Your task to perform on an android device: see creations saved in the google photos Image 0: 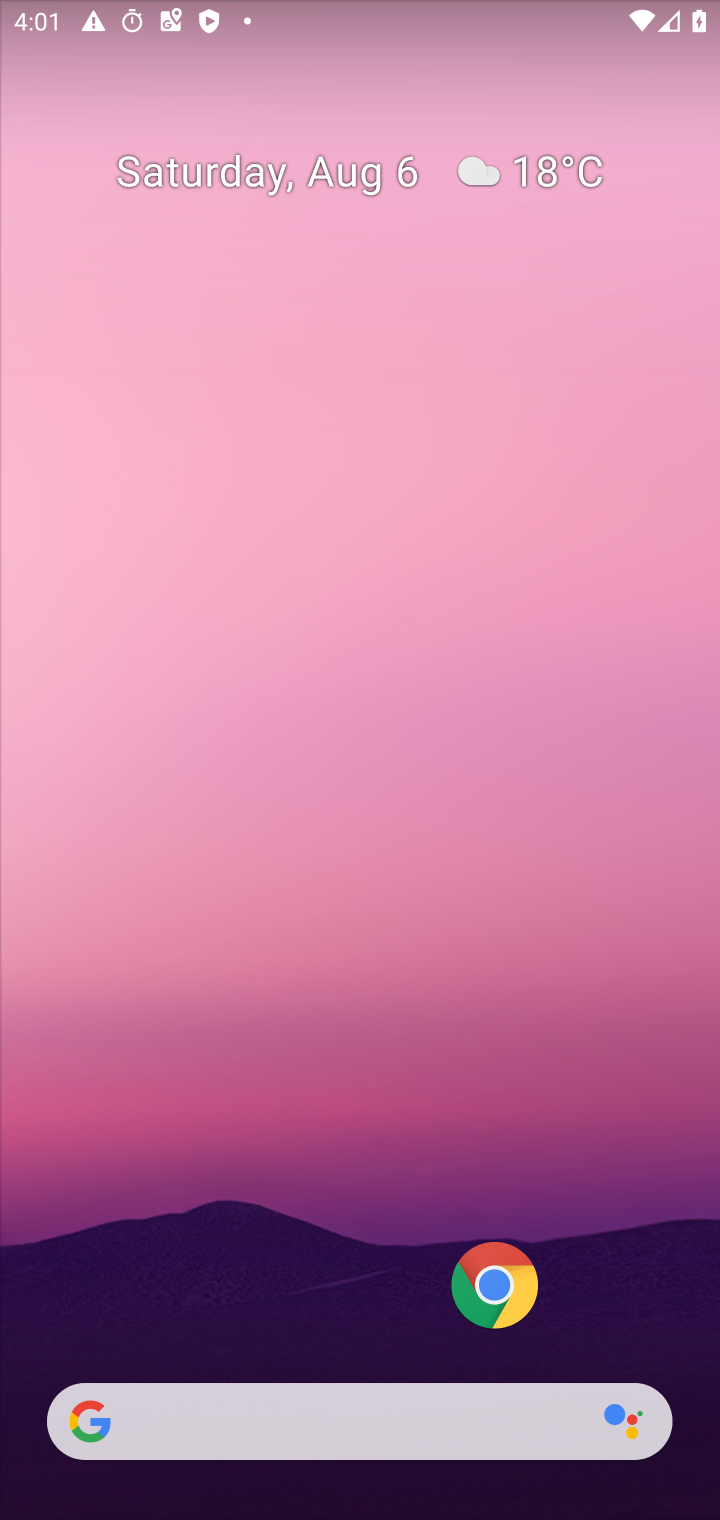
Step 0: press home button
Your task to perform on an android device: see creations saved in the google photos Image 1: 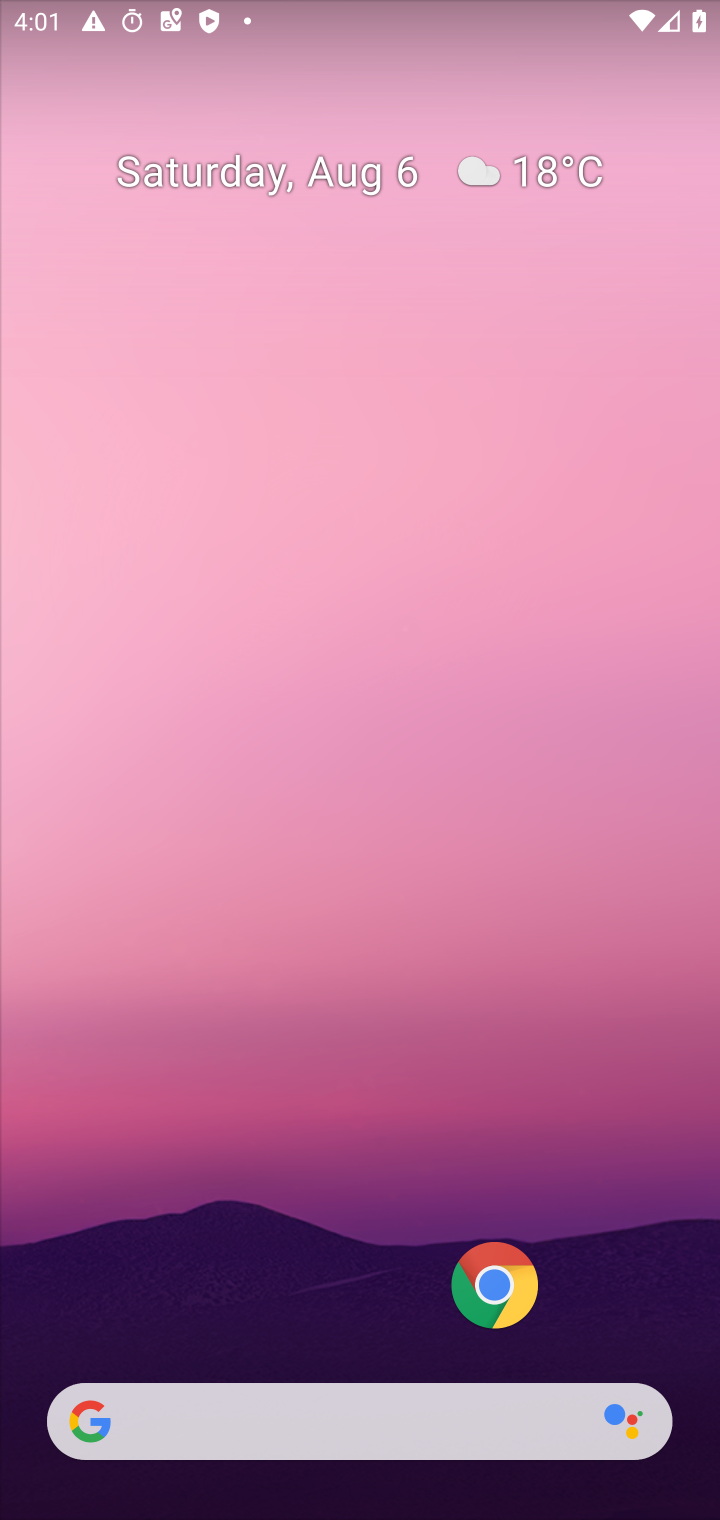
Step 1: drag from (347, 1078) to (426, 203)
Your task to perform on an android device: see creations saved in the google photos Image 2: 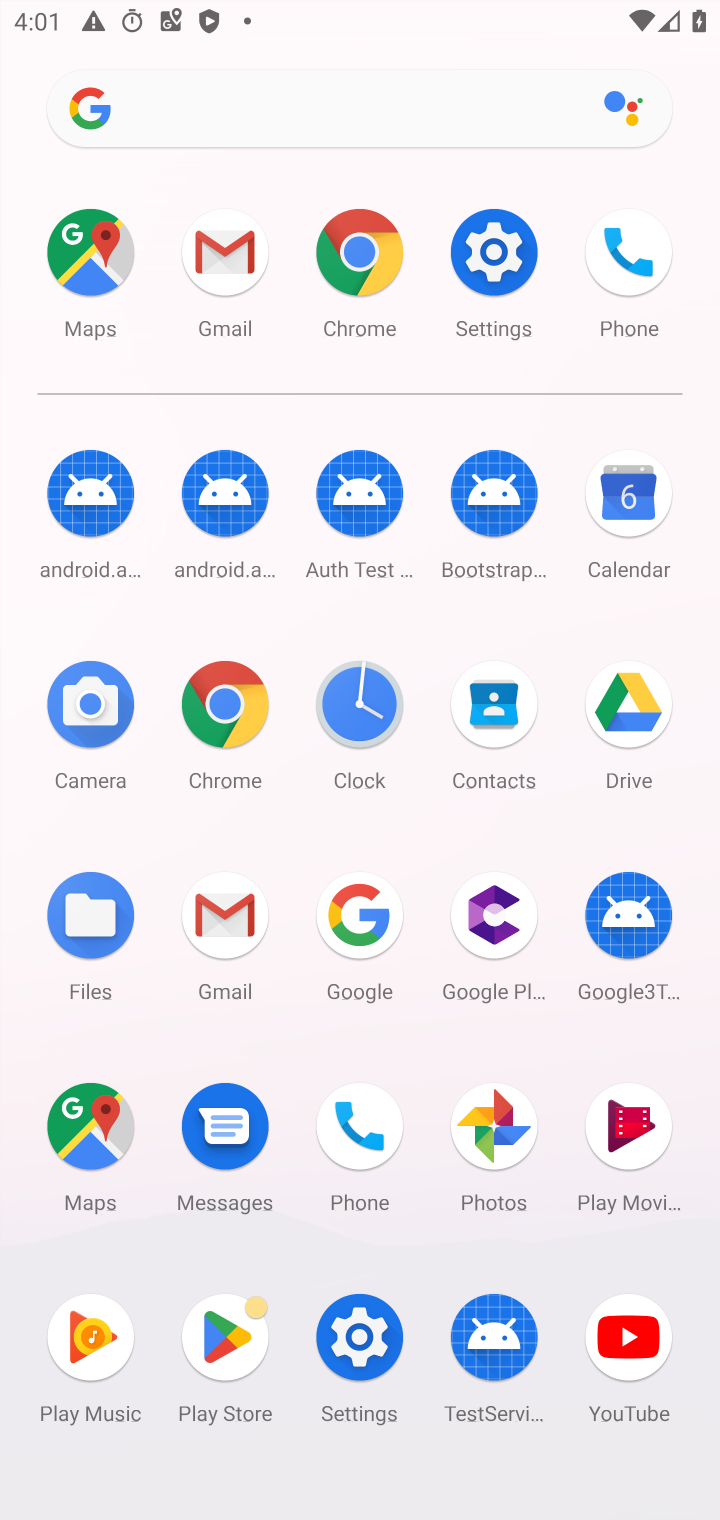
Step 2: click (494, 1114)
Your task to perform on an android device: see creations saved in the google photos Image 3: 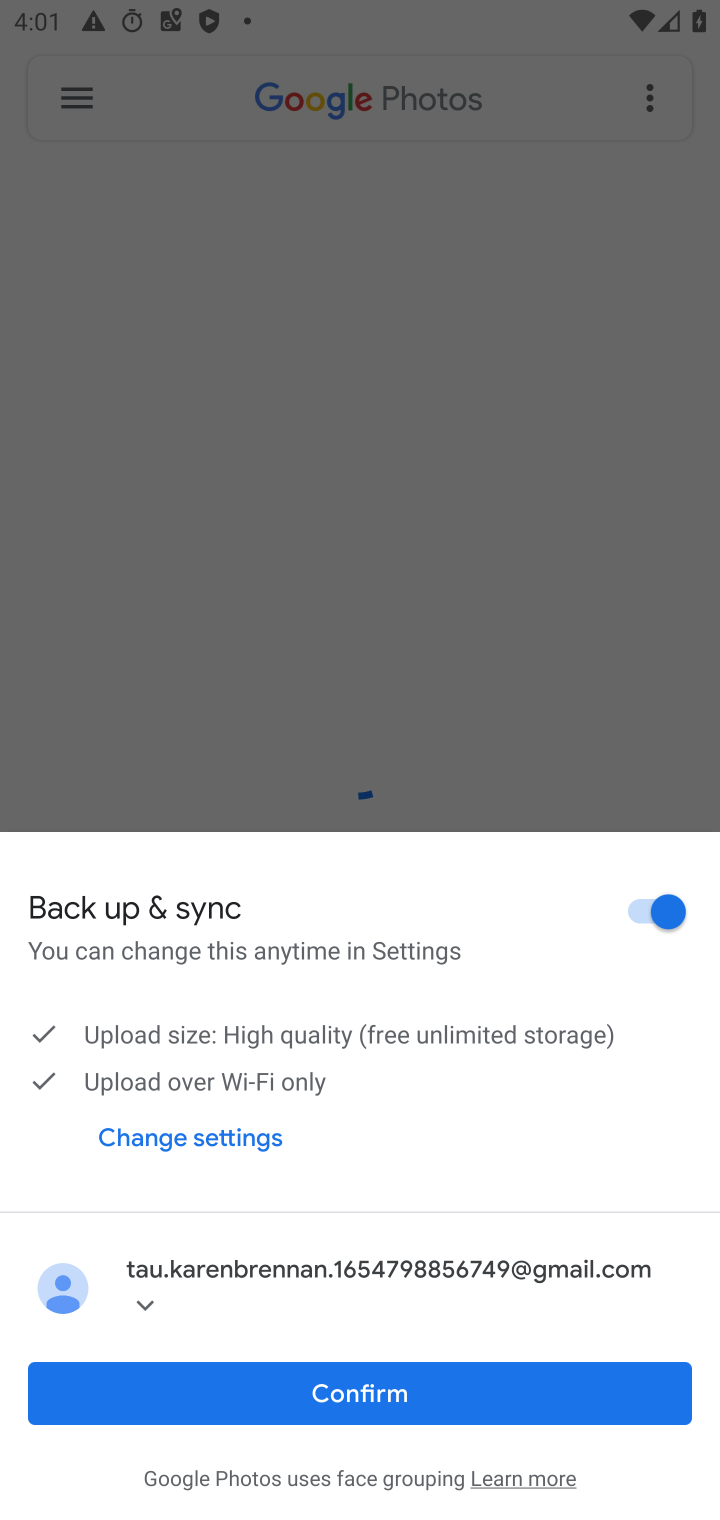
Step 3: click (367, 1382)
Your task to perform on an android device: see creations saved in the google photos Image 4: 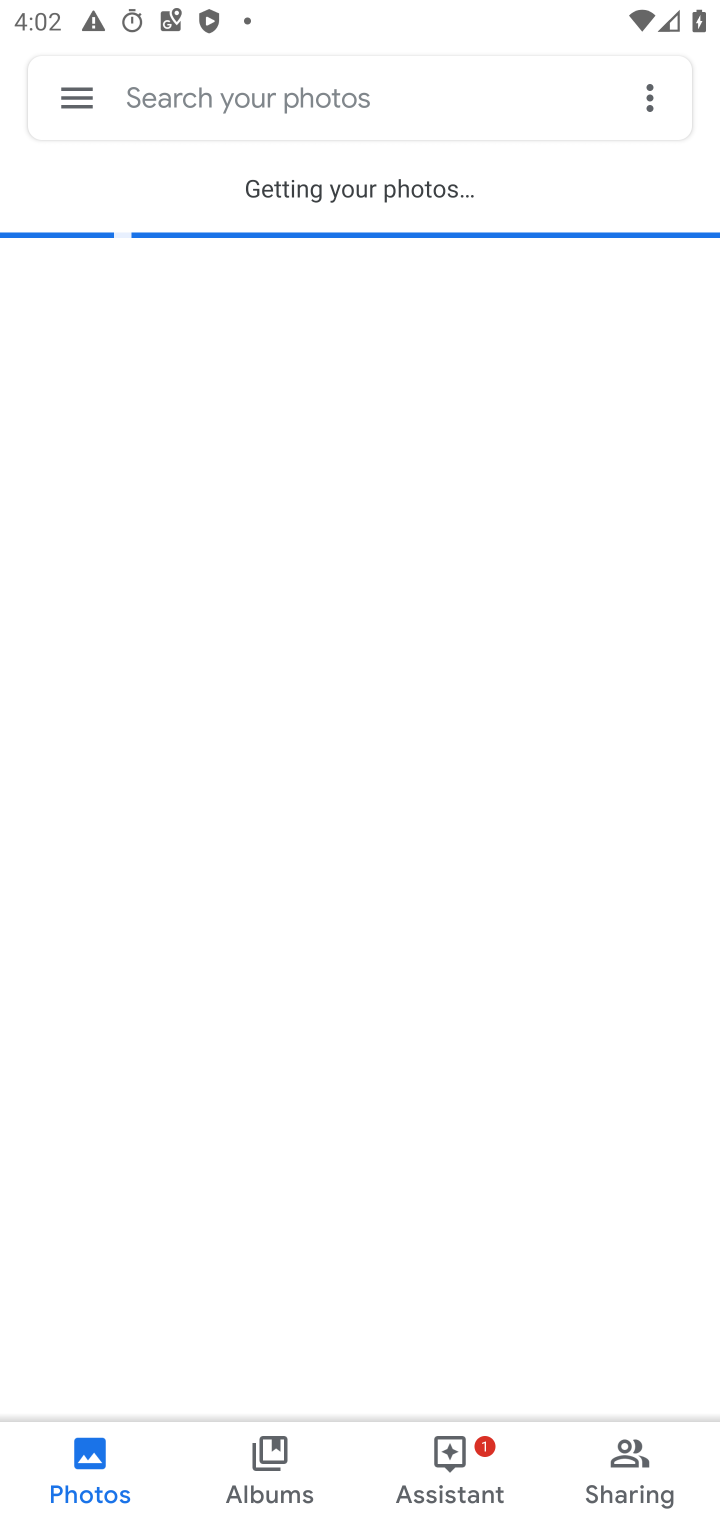
Step 4: click (226, 83)
Your task to perform on an android device: see creations saved in the google photos Image 5: 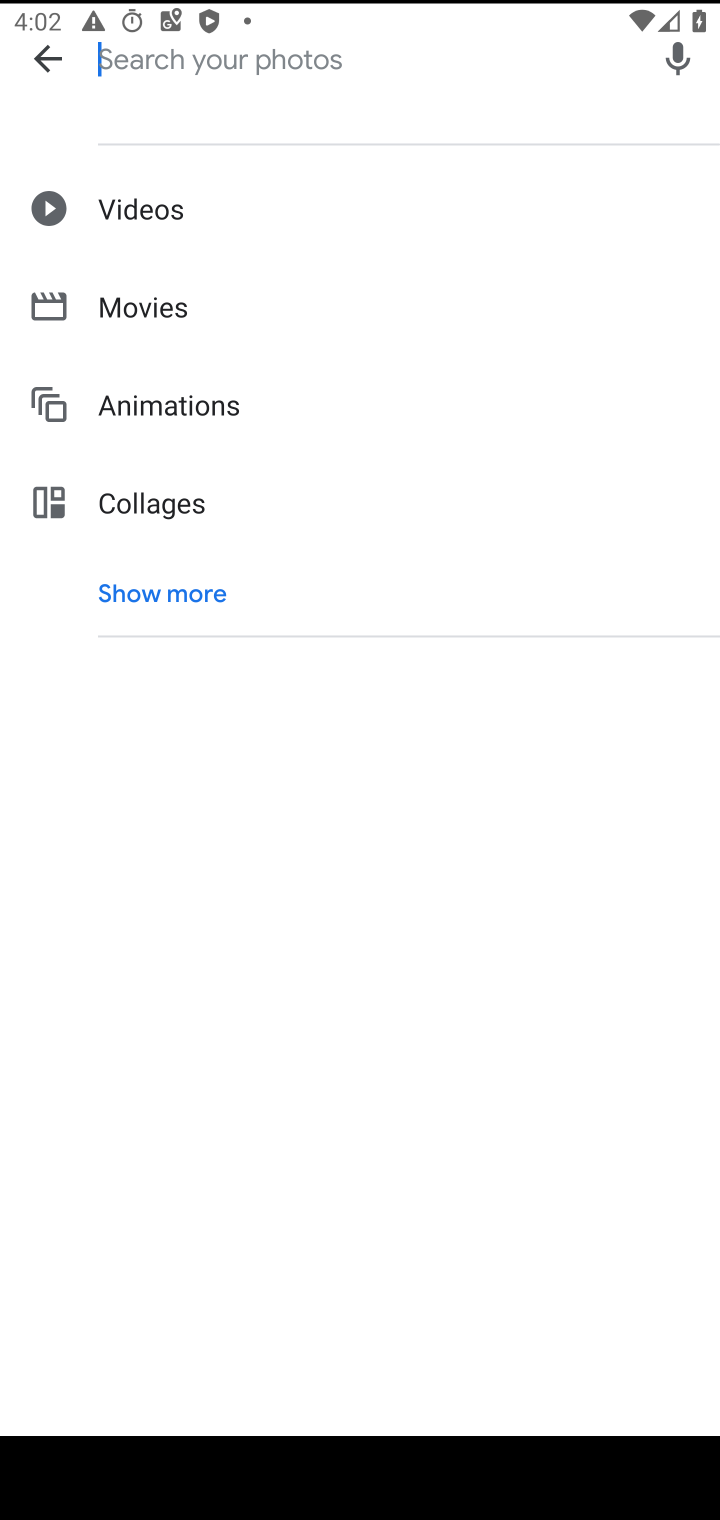
Step 5: click (144, 586)
Your task to perform on an android device: see creations saved in the google photos Image 6: 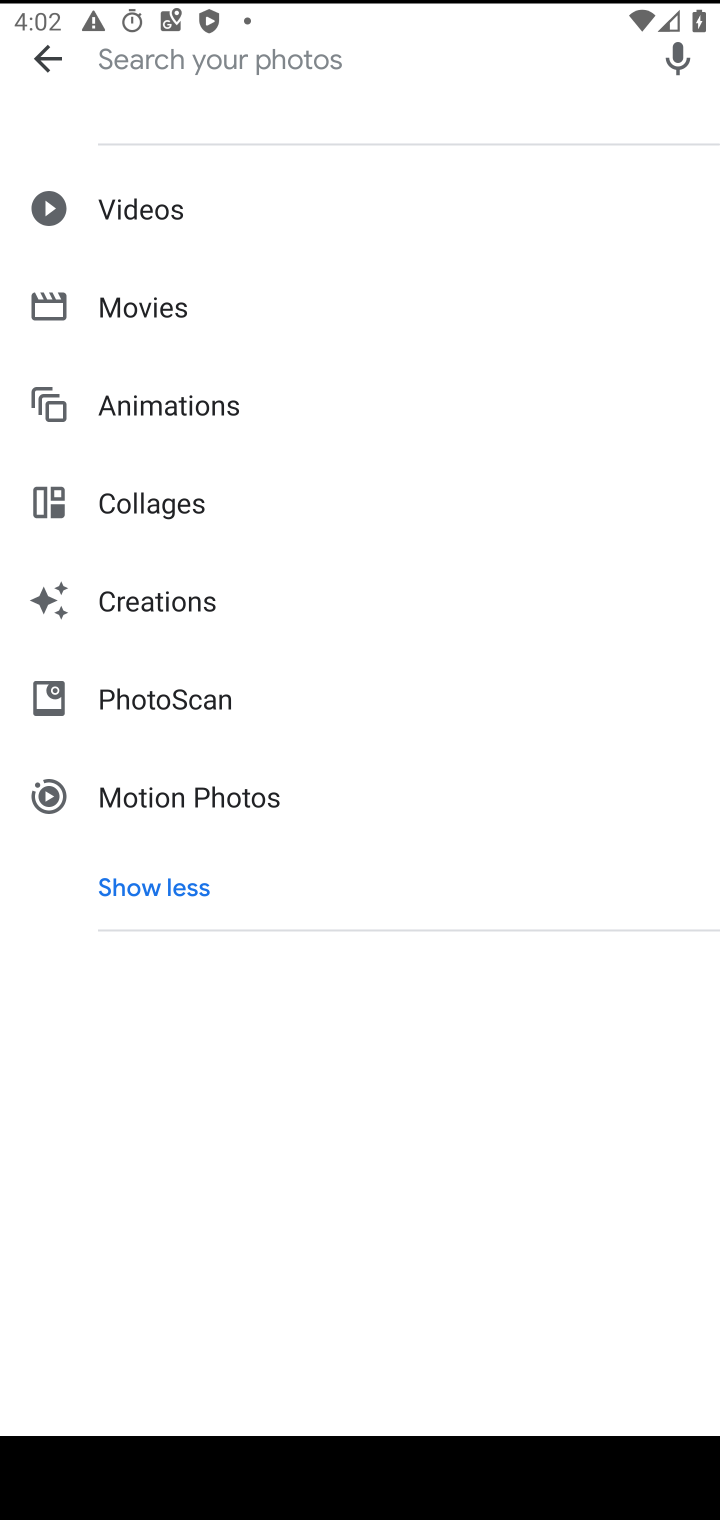
Step 6: click (220, 602)
Your task to perform on an android device: see creations saved in the google photos Image 7: 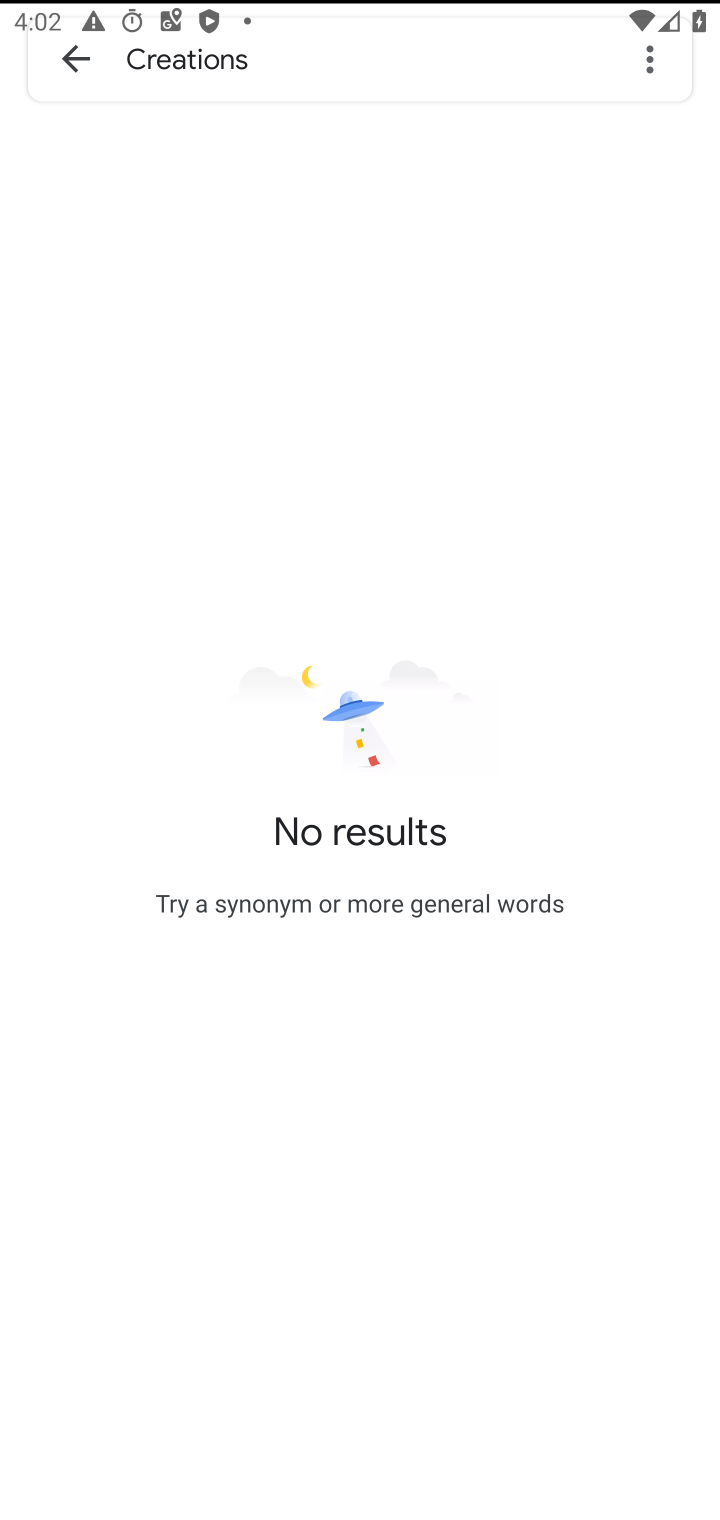
Step 7: task complete